Your task to perform on an android device: Go to settings Image 0: 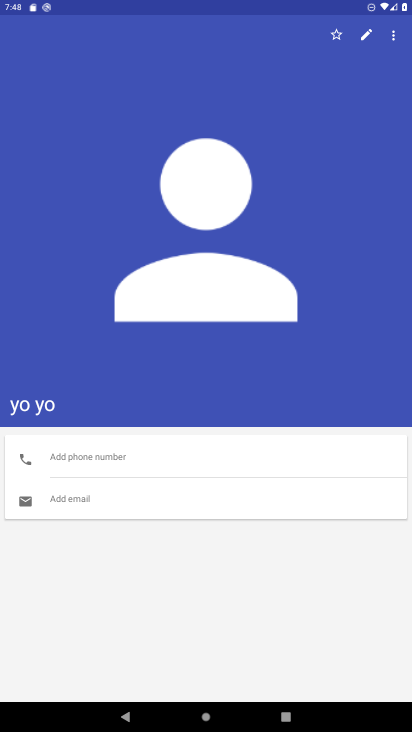
Step 0: press home button
Your task to perform on an android device: Go to settings Image 1: 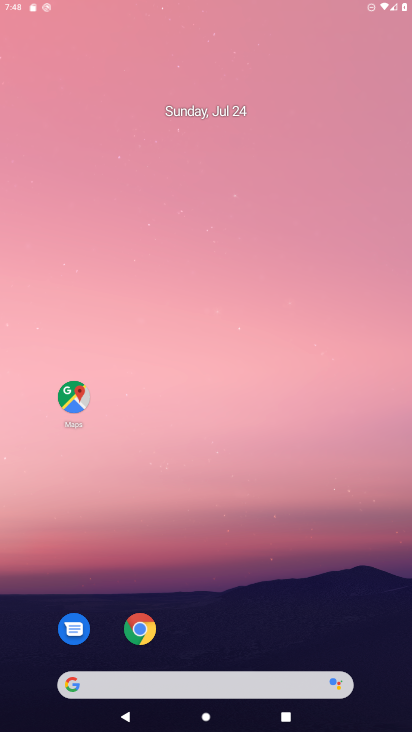
Step 1: drag from (287, 286) to (203, 59)
Your task to perform on an android device: Go to settings Image 2: 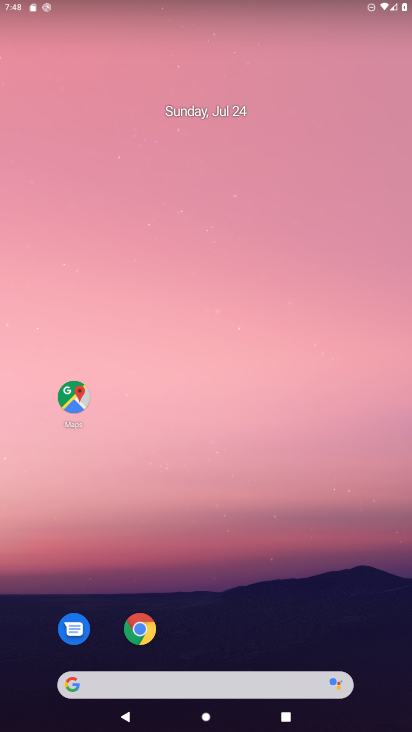
Step 2: drag from (374, 660) to (190, 16)
Your task to perform on an android device: Go to settings Image 3: 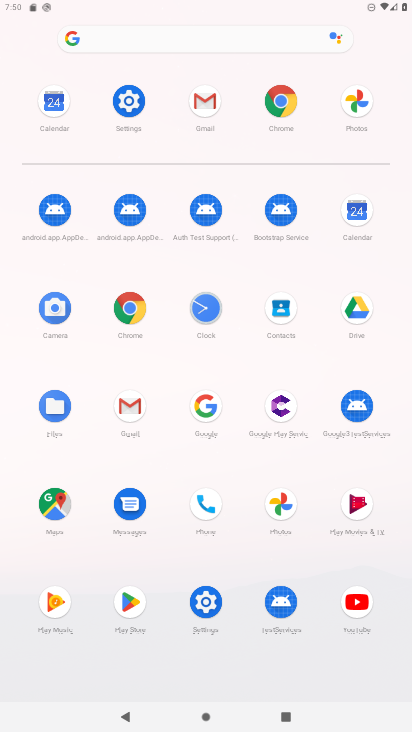
Step 3: click (197, 605)
Your task to perform on an android device: Go to settings Image 4: 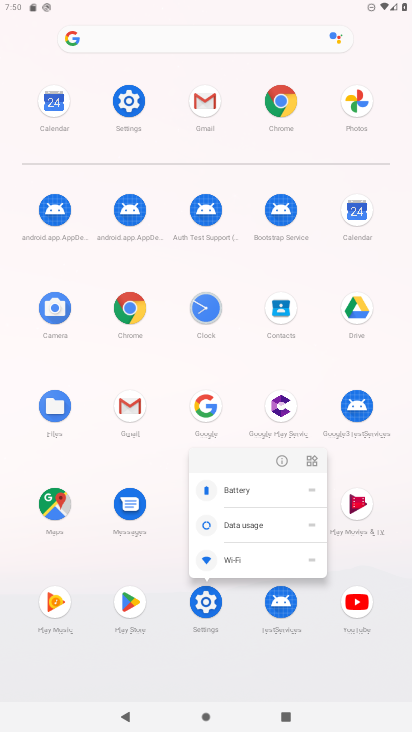
Step 4: click (199, 606)
Your task to perform on an android device: Go to settings Image 5: 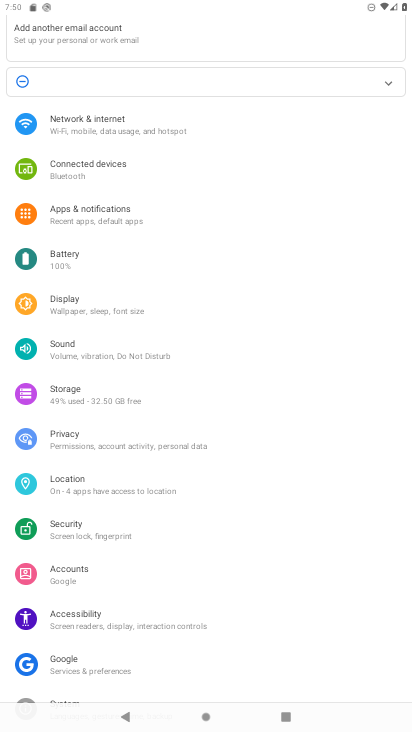
Step 5: task complete